Your task to perform on an android device: turn on sleep mode Image 0: 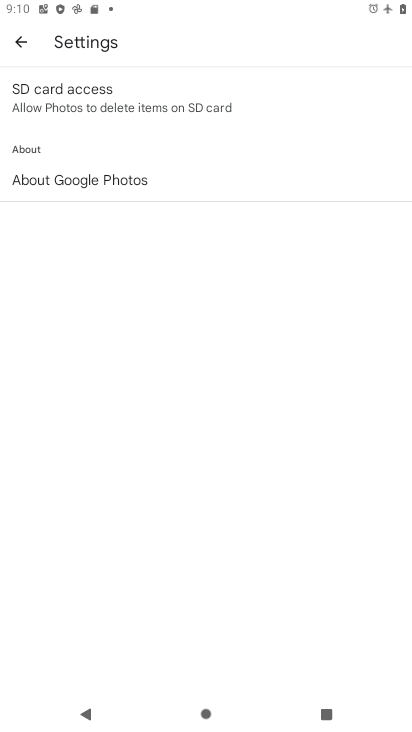
Step 0: press home button
Your task to perform on an android device: turn on sleep mode Image 1: 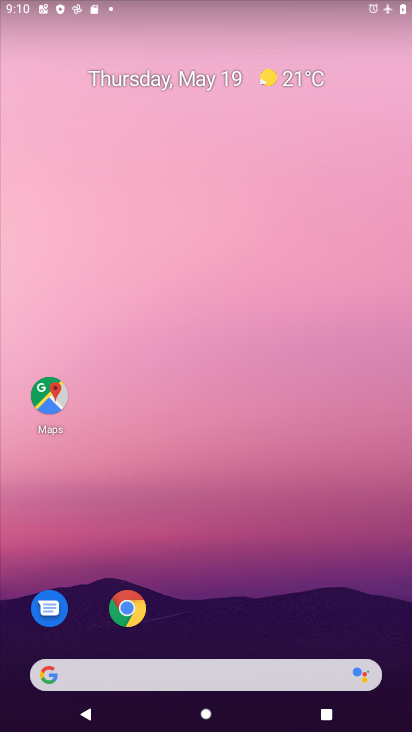
Step 1: drag from (224, 532) to (186, 29)
Your task to perform on an android device: turn on sleep mode Image 2: 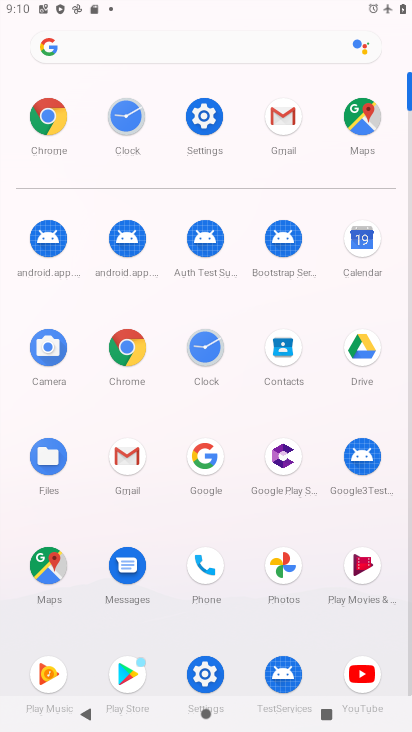
Step 2: click (205, 127)
Your task to perform on an android device: turn on sleep mode Image 3: 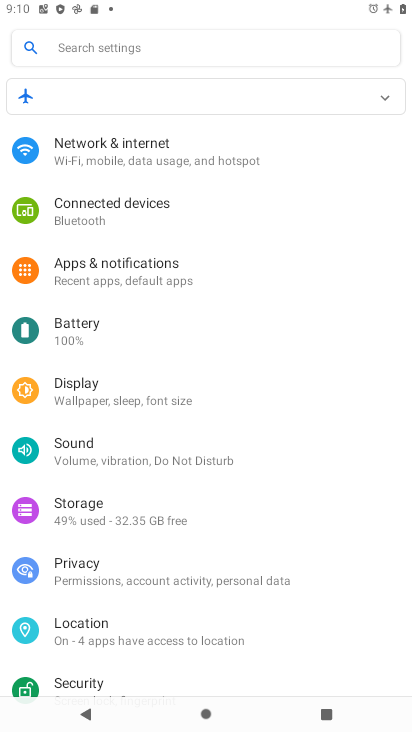
Step 3: click (68, 387)
Your task to perform on an android device: turn on sleep mode Image 4: 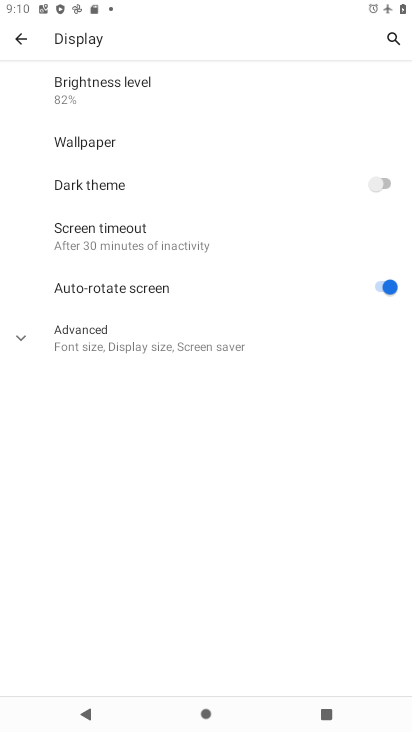
Step 4: click (78, 327)
Your task to perform on an android device: turn on sleep mode Image 5: 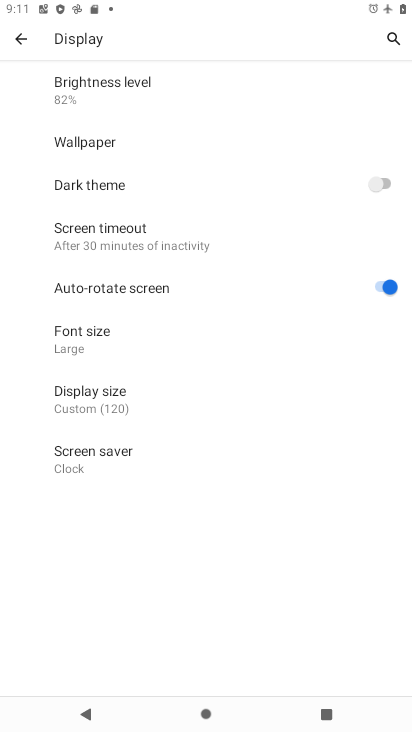
Step 5: task complete